Your task to perform on an android device: Open internet settings Image 0: 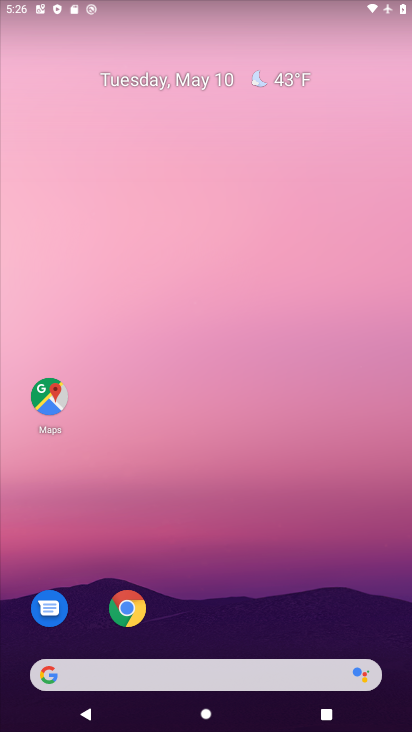
Step 0: drag from (213, 621) to (363, 35)
Your task to perform on an android device: Open internet settings Image 1: 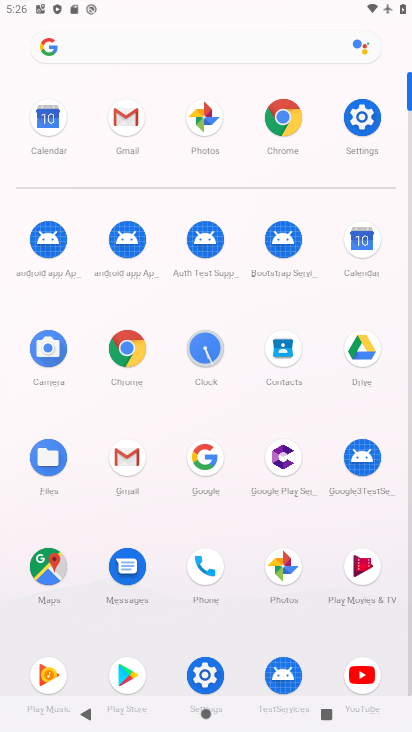
Step 1: click (372, 102)
Your task to perform on an android device: Open internet settings Image 2: 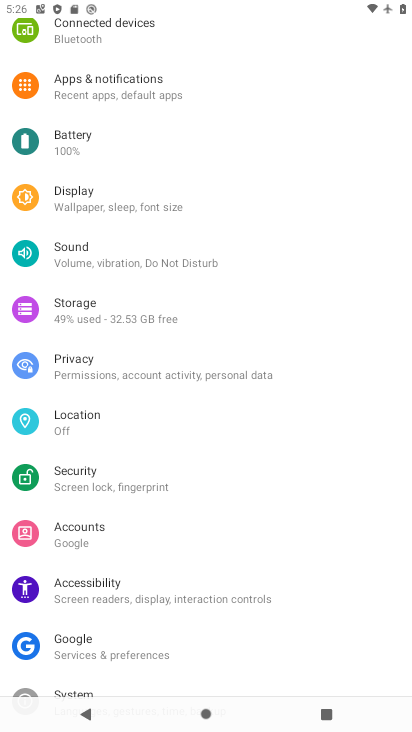
Step 2: drag from (157, 114) to (132, 677)
Your task to perform on an android device: Open internet settings Image 3: 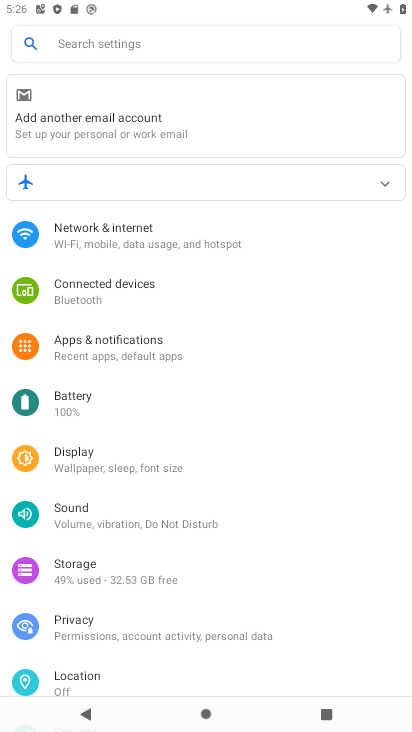
Step 3: click (156, 235)
Your task to perform on an android device: Open internet settings Image 4: 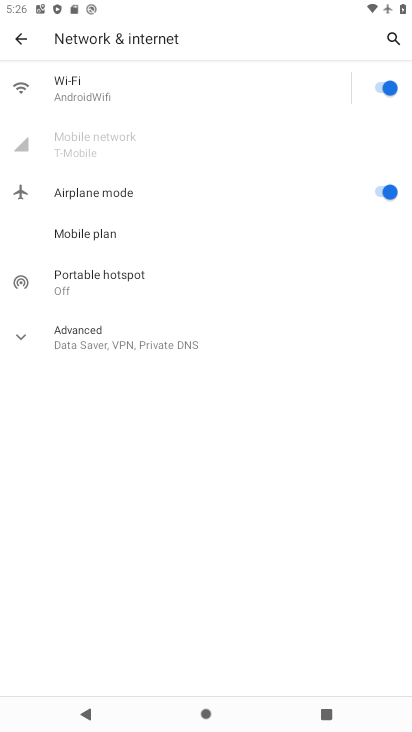
Step 4: task complete